Your task to perform on an android device: Play the latest video from the New York Times Image 0: 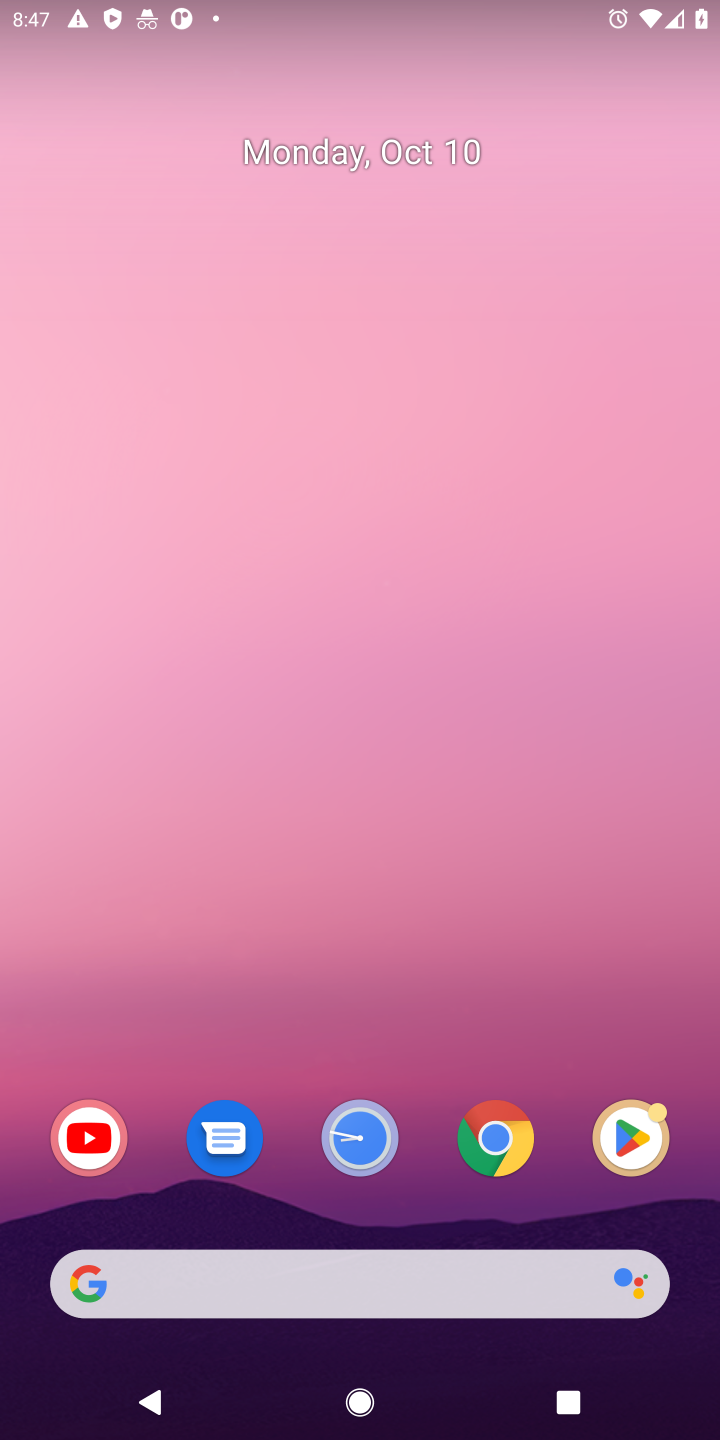
Step 0: click (95, 1142)
Your task to perform on an android device: Play the latest video from the New York Times Image 1: 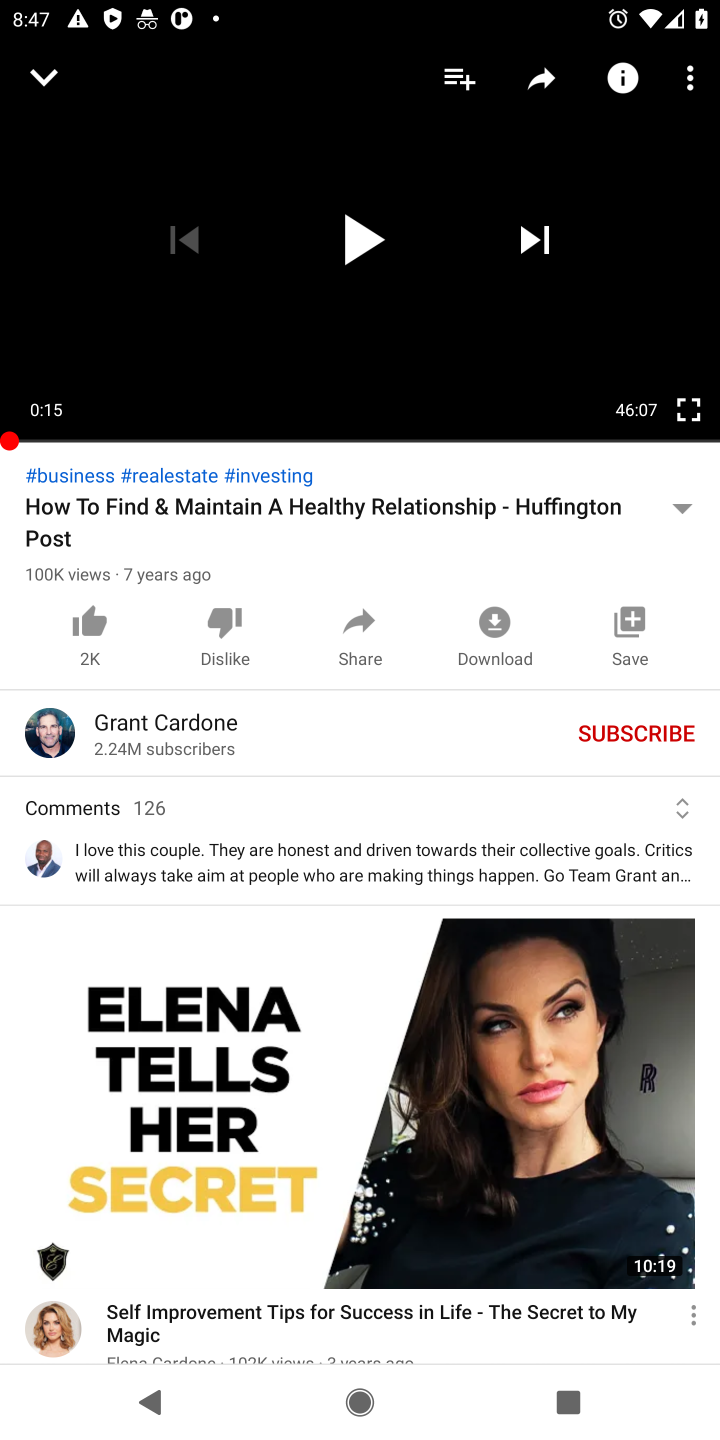
Step 1: press back button
Your task to perform on an android device: Play the latest video from the New York Times Image 2: 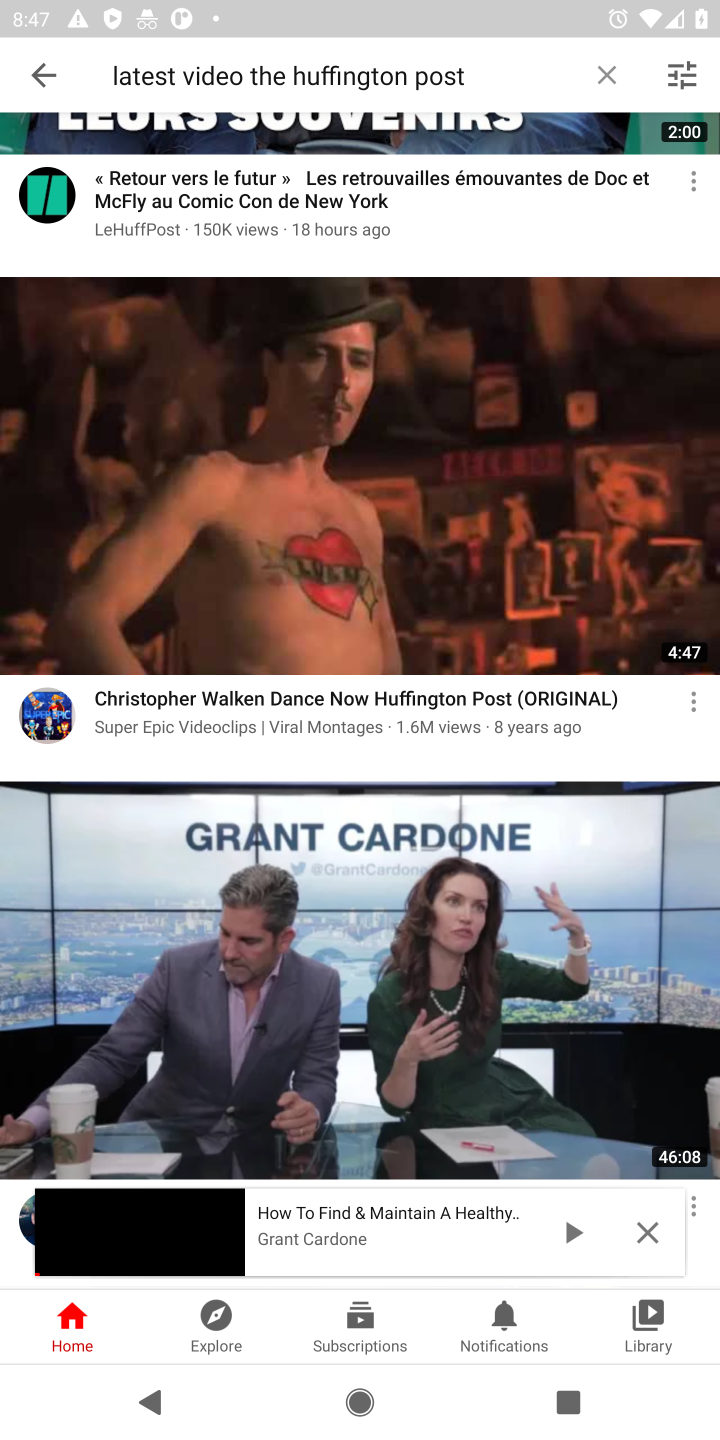
Step 2: click (648, 1234)
Your task to perform on an android device: Play the latest video from the New York Times Image 3: 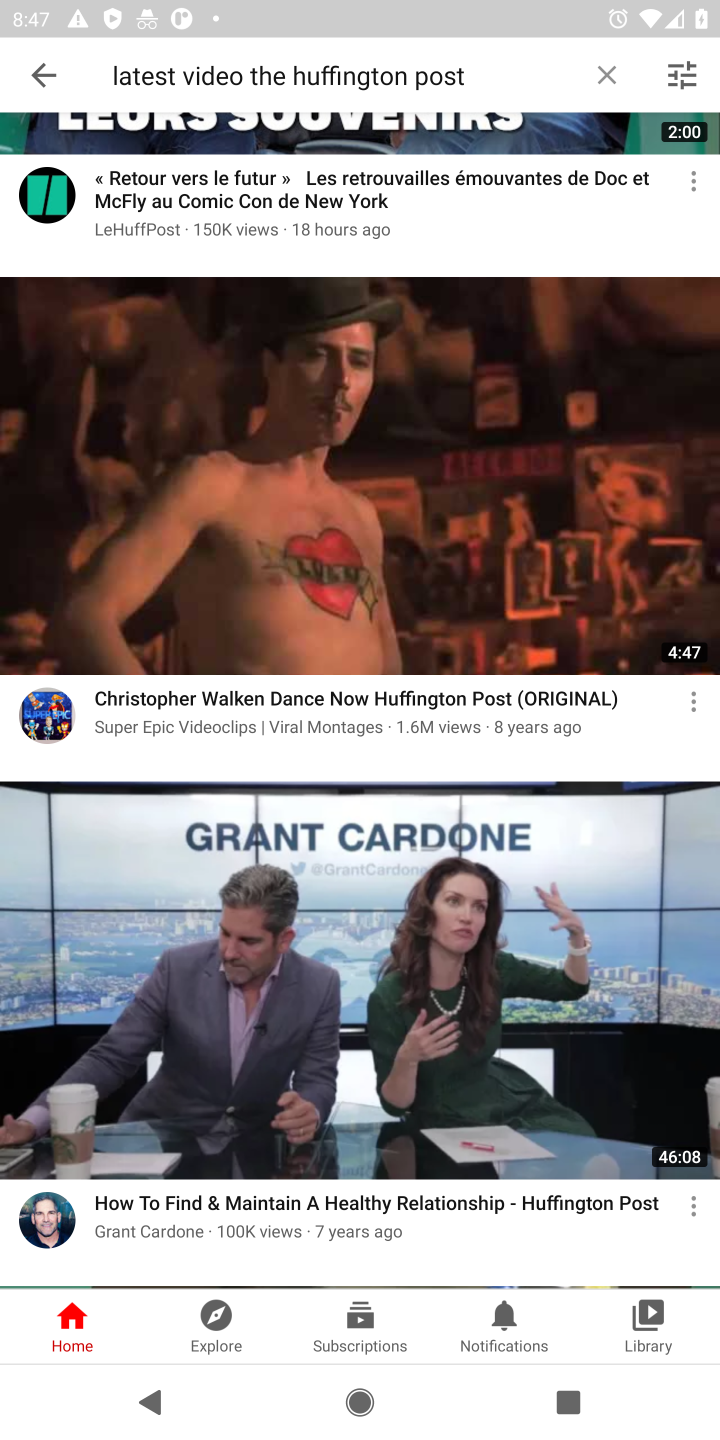
Step 3: click (611, 72)
Your task to perform on an android device: Play the latest video from the New York Times Image 4: 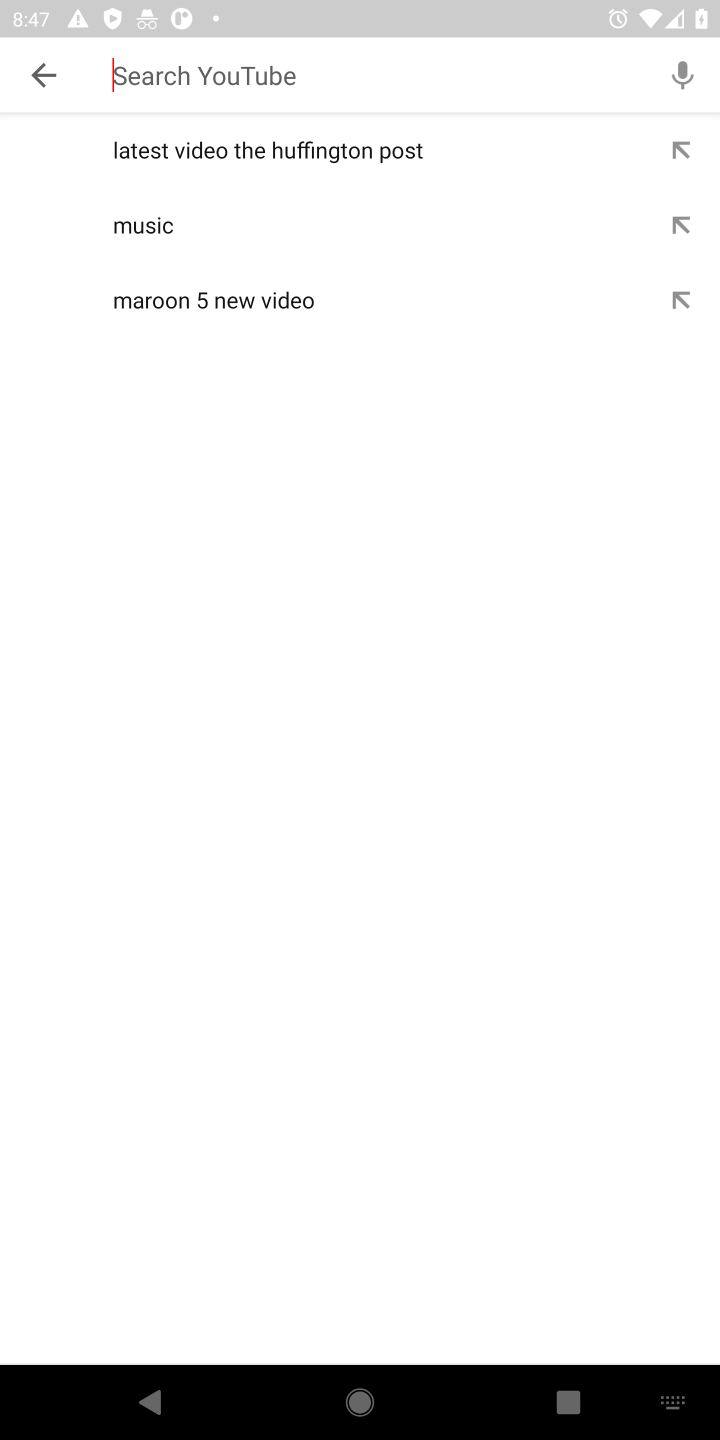
Step 4: click (431, 68)
Your task to perform on an android device: Play the latest video from the New York Times Image 5: 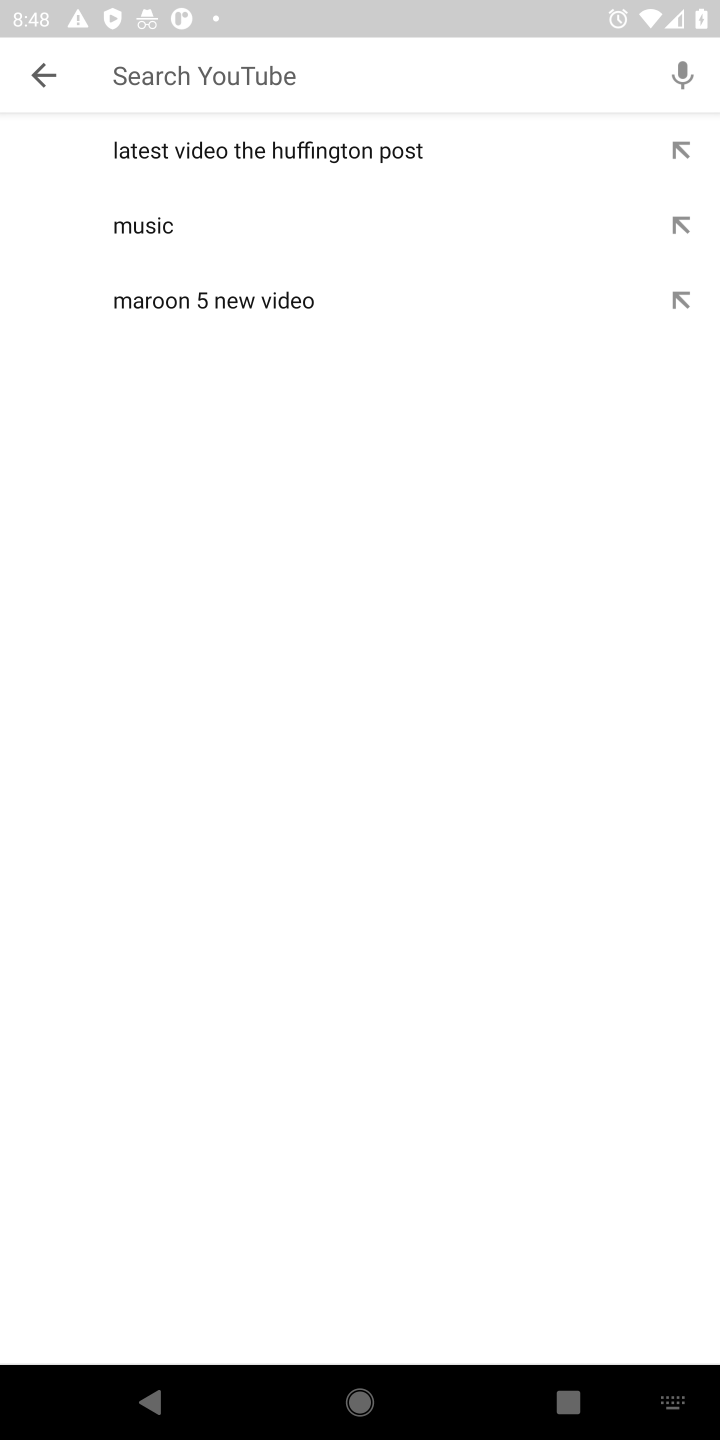
Step 5: type "latest video from the New York Times"
Your task to perform on an android device: Play the latest video from the New York Times Image 6: 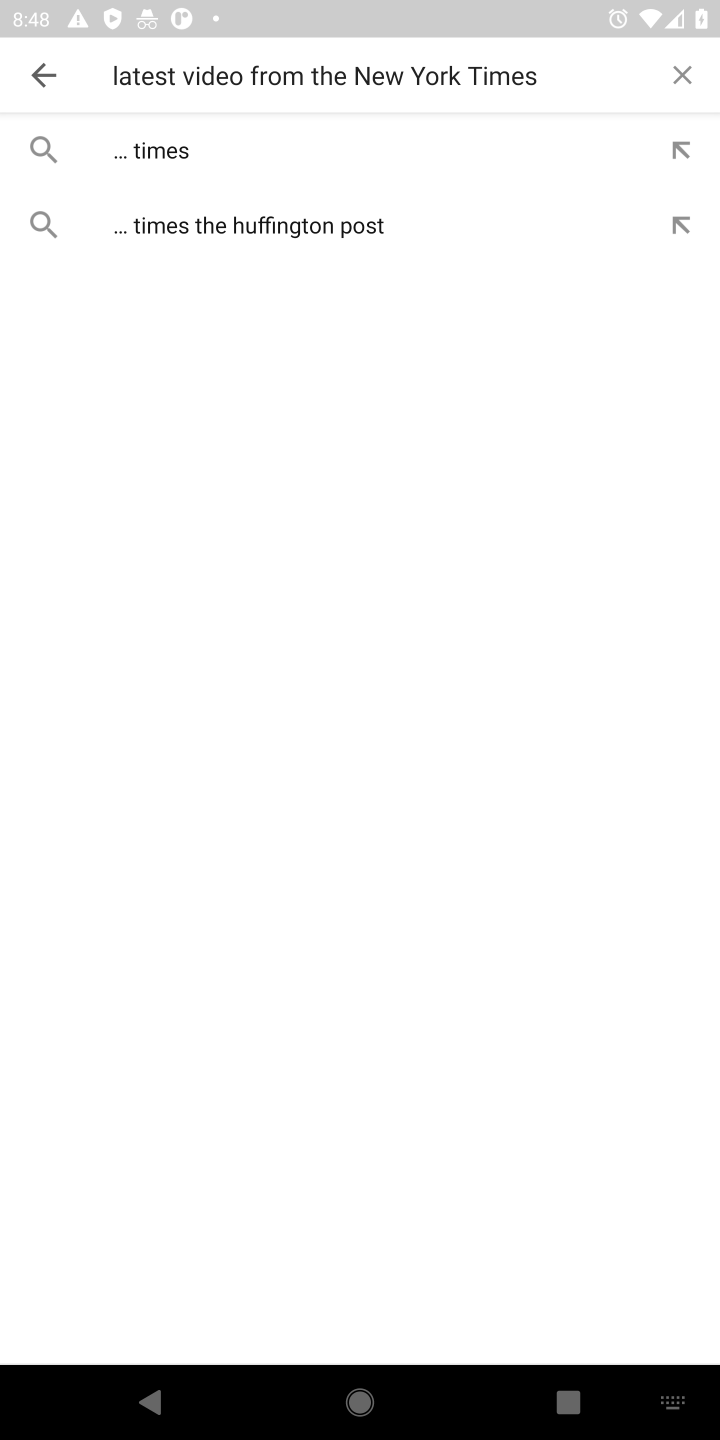
Step 6: click (176, 159)
Your task to perform on an android device: Play the latest video from the New York Times Image 7: 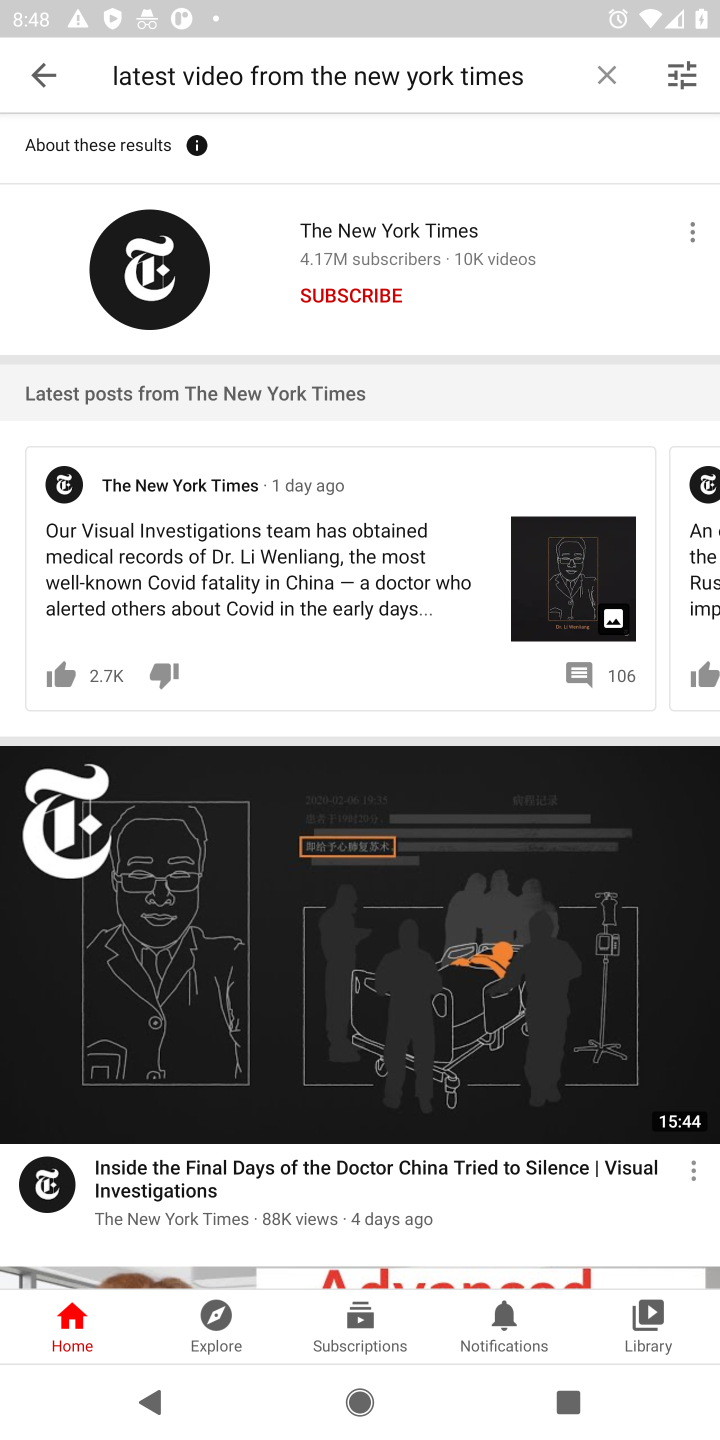
Step 7: drag from (312, 1093) to (467, 626)
Your task to perform on an android device: Play the latest video from the New York Times Image 8: 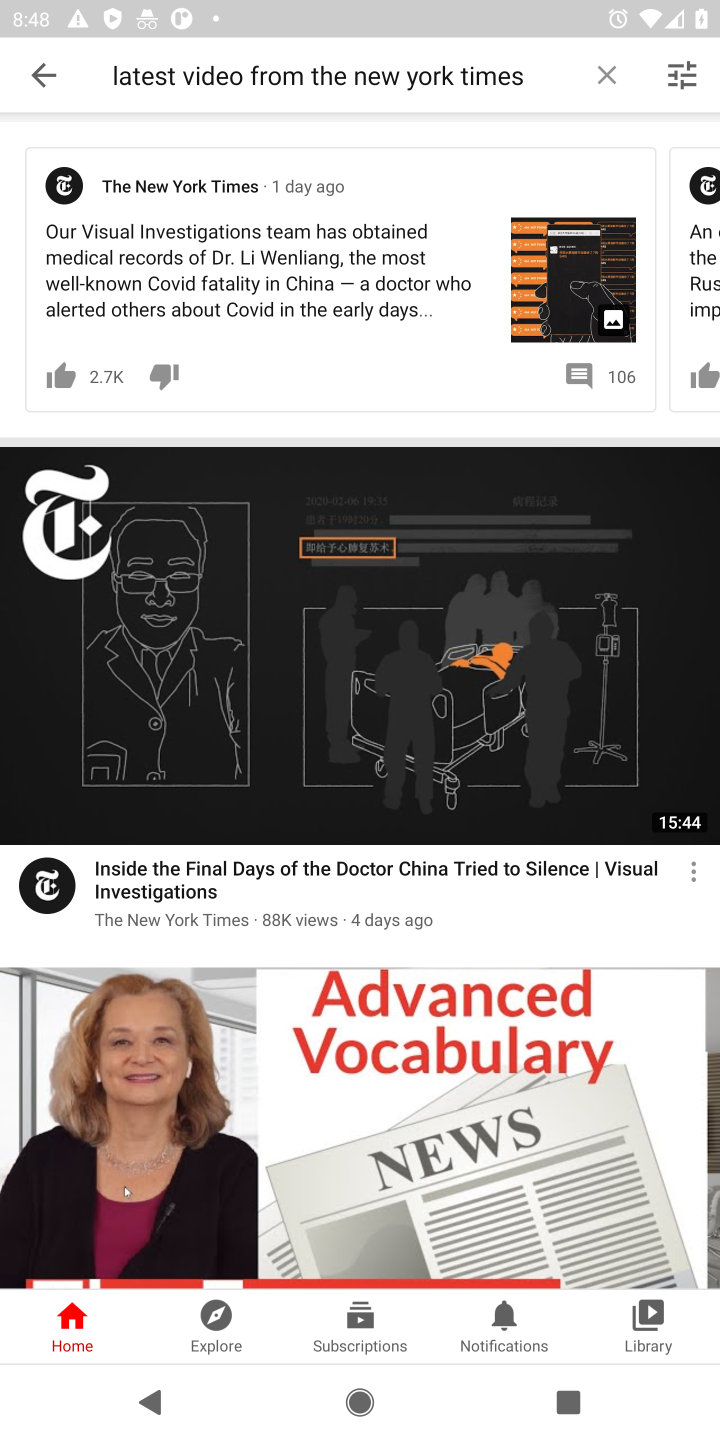
Step 8: drag from (349, 951) to (523, 659)
Your task to perform on an android device: Play the latest video from the New York Times Image 9: 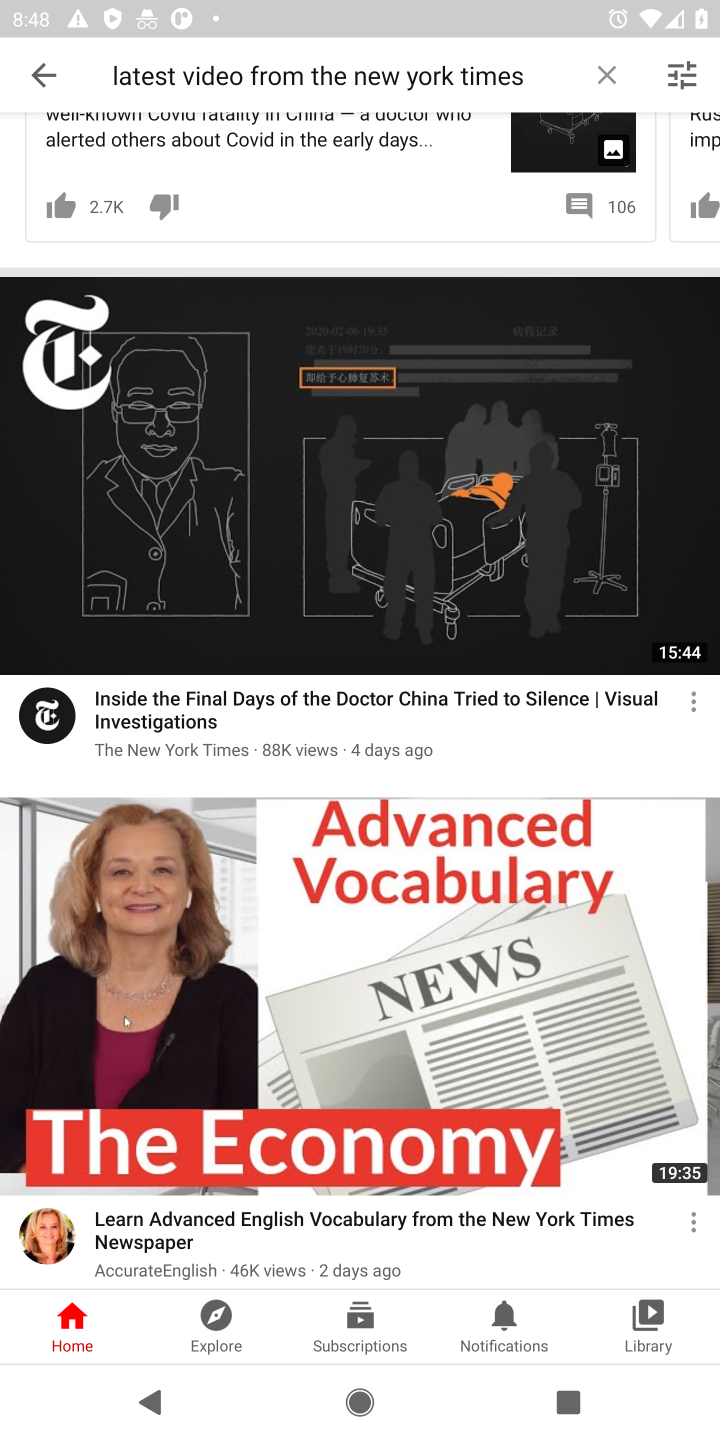
Step 9: click (389, 598)
Your task to perform on an android device: Play the latest video from the New York Times Image 10: 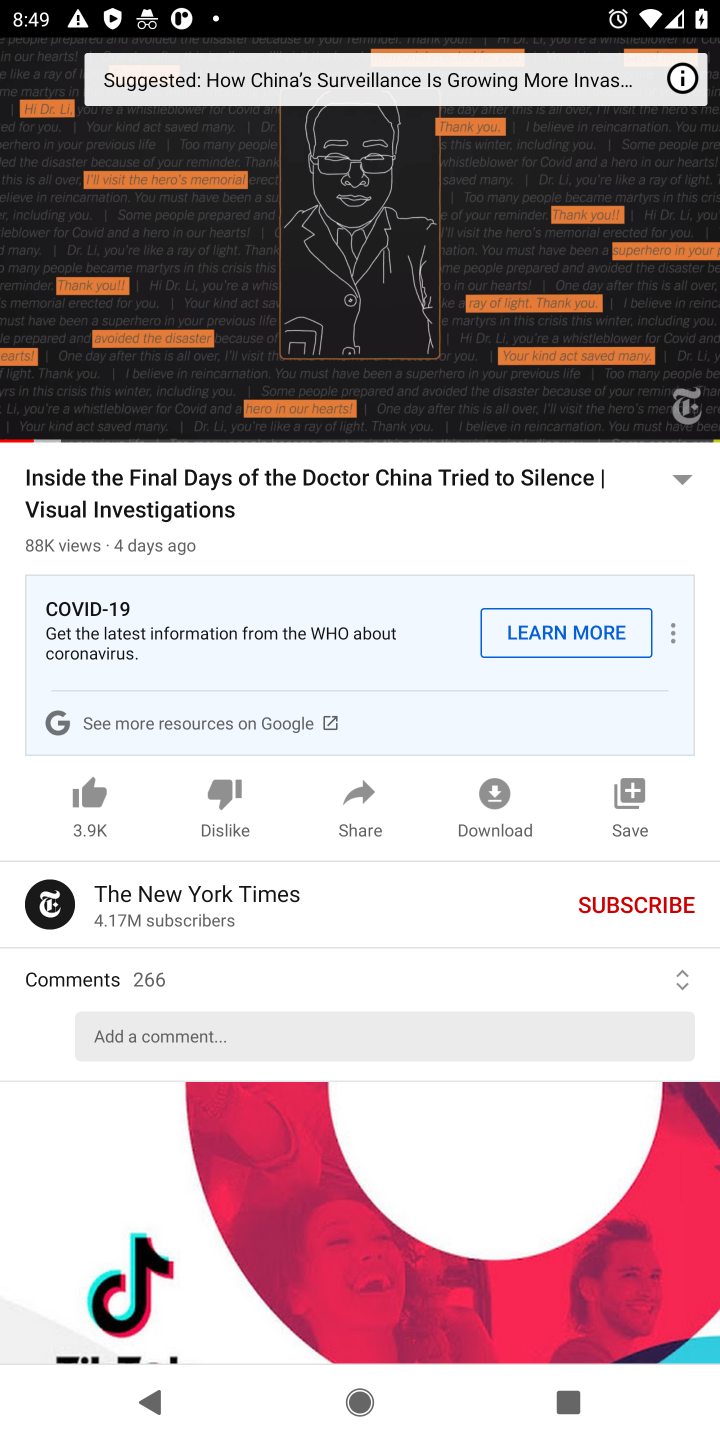
Step 10: task complete